Your task to perform on an android device: make emails show in primary in the gmail app Image 0: 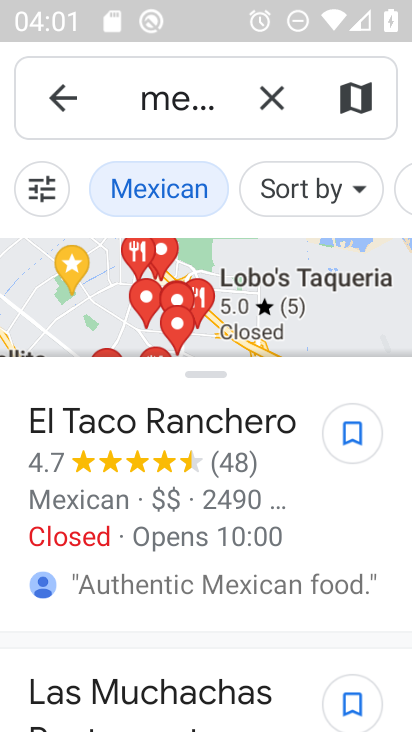
Step 0: press home button
Your task to perform on an android device: make emails show in primary in the gmail app Image 1: 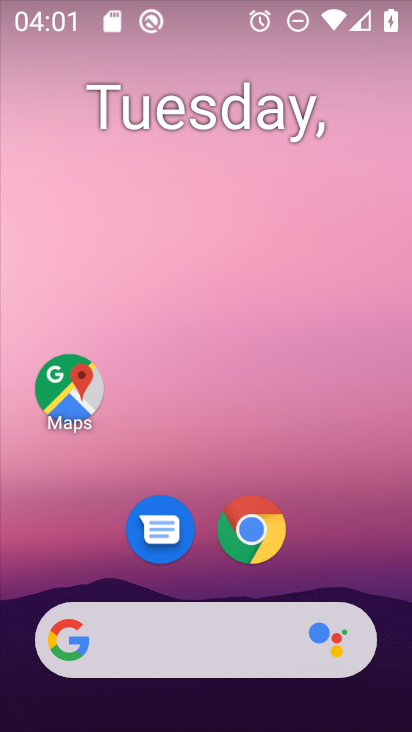
Step 1: drag from (316, 564) to (307, 234)
Your task to perform on an android device: make emails show in primary in the gmail app Image 2: 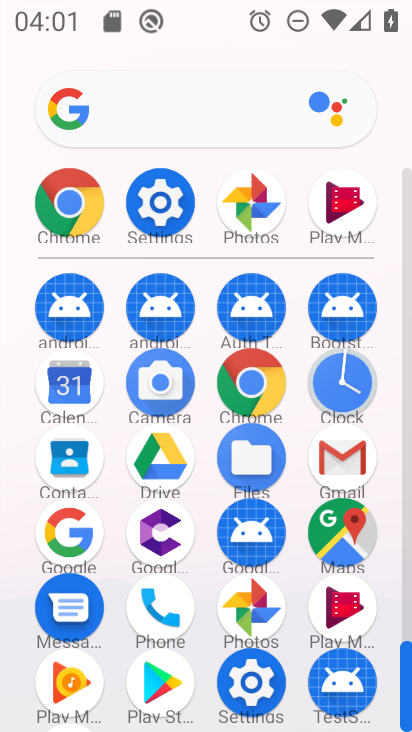
Step 2: click (342, 457)
Your task to perform on an android device: make emails show in primary in the gmail app Image 3: 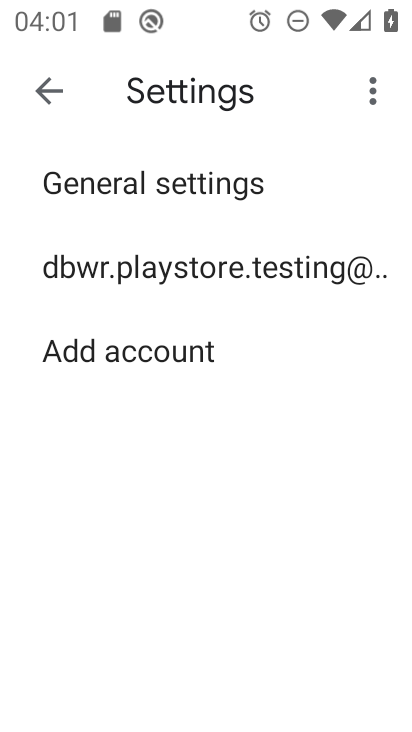
Step 3: click (50, 70)
Your task to perform on an android device: make emails show in primary in the gmail app Image 4: 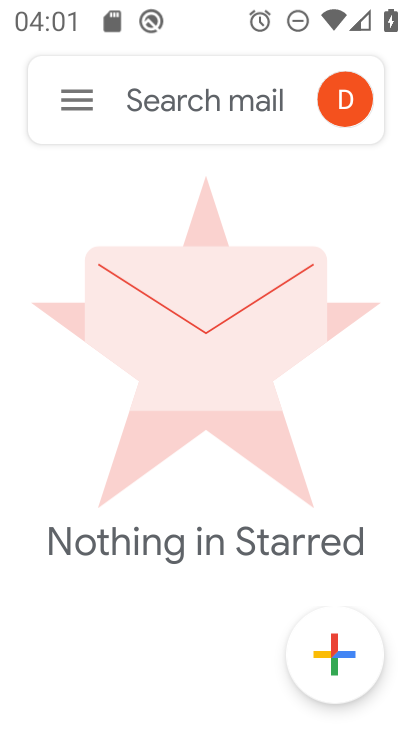
Step 4: click (67, 97)
Your task to perform on an android device: make emails show in primary in the gmail app Image 5: 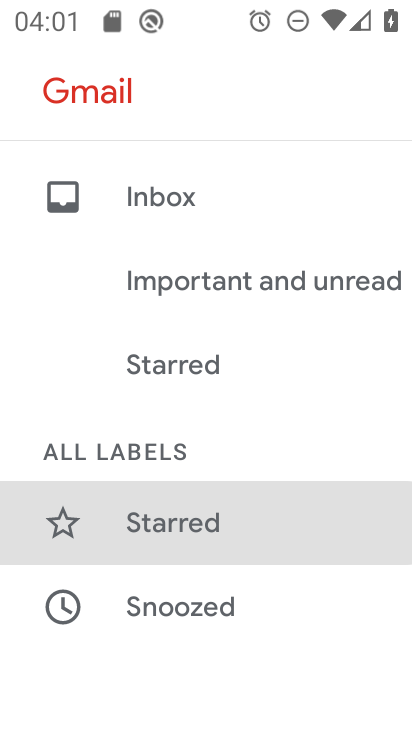
Step 5: drag from (191, 574) to (224, 171)
Your task to perform on an android device: make emails show in primary in the gmail app Image 6: 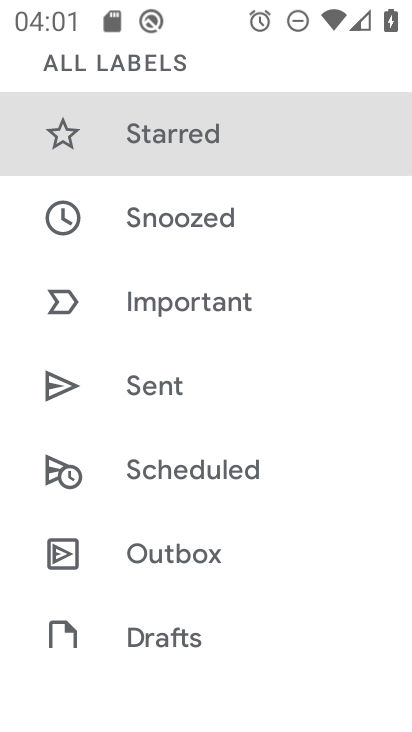
Step 6: drag from (182, 621) to (214, 201)
Your task to perform on an android device: make emails show in primary in the gmail app Image 7: 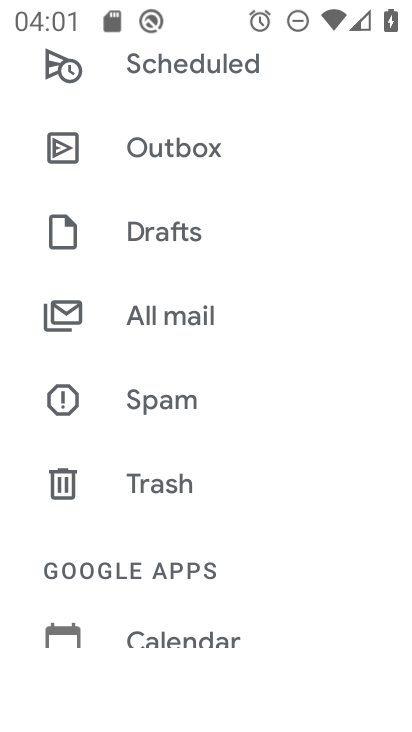
Step 7: drag from (179, 576) to (218, 226)
Your task to perform on an android device: make emails show in primary in the gmail app Image 8: 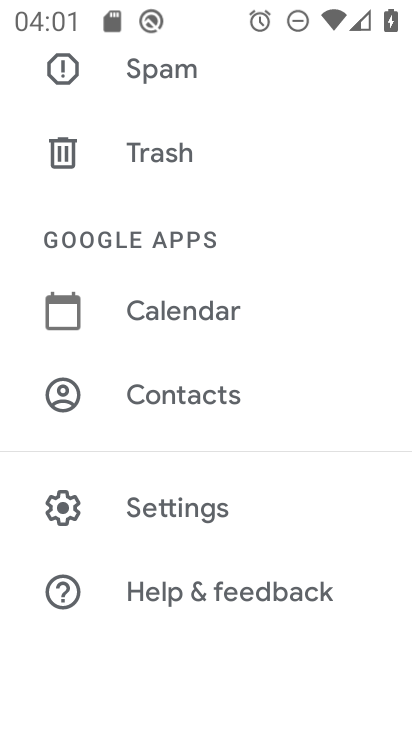
Step 8: click (179, 503)
Your task to perform on an android device: make emails show in primary in the gmail app Image 9: 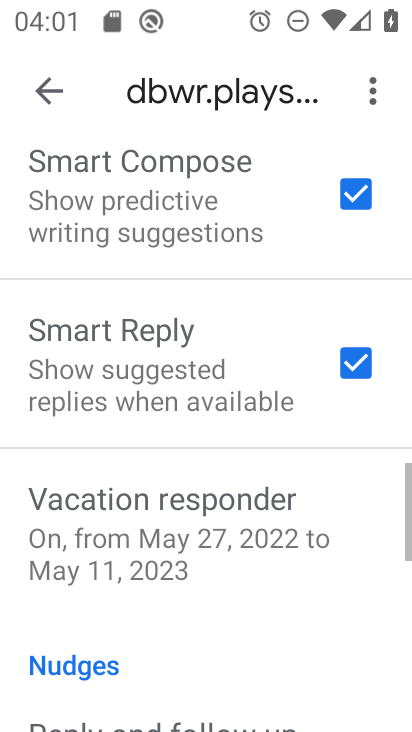
Step 9: task complete